Your task to perform on an android device: toggle show notifications on the lock screen Image 0: 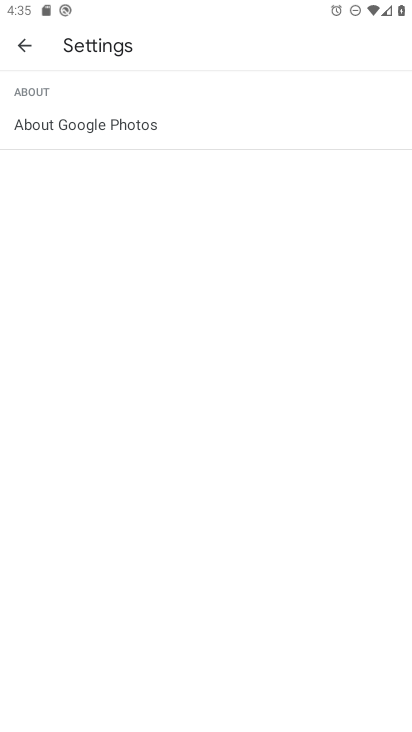
Step 0: press home button
Your task to perform on an android device: toggle show notifications on the lock screen Image 1: 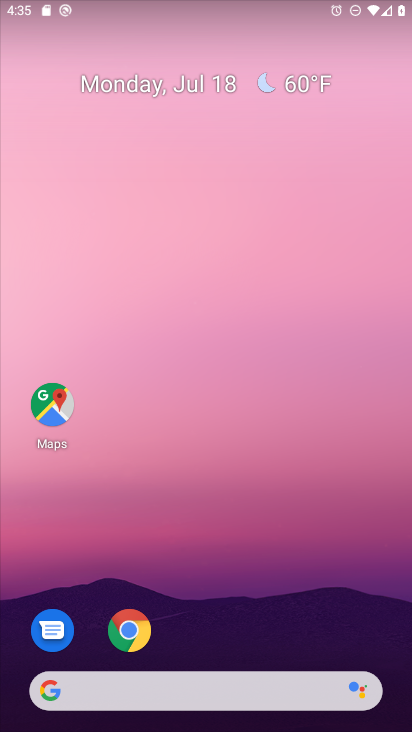
Step 1: drag from (237, 598) to (173, 111)
Your task to perform on an android device: toggle show notifications on the lock screen Image 2: 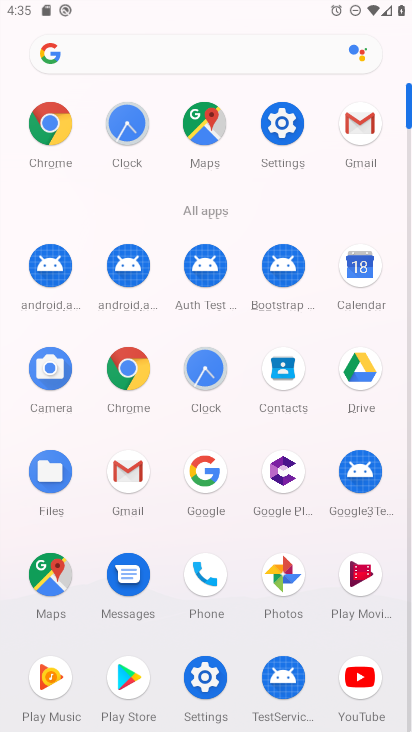
Step 2: click (279, 119)
Your task to perform on an android device: toggle show notifications on the lock screen Image 3: 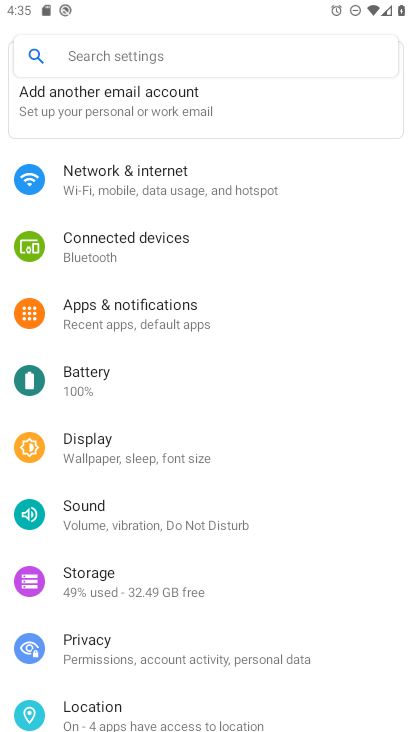
Step 3: click (116, 299)
Your task to perform on an android device: toggle show notifications on the lock screen Image 4: 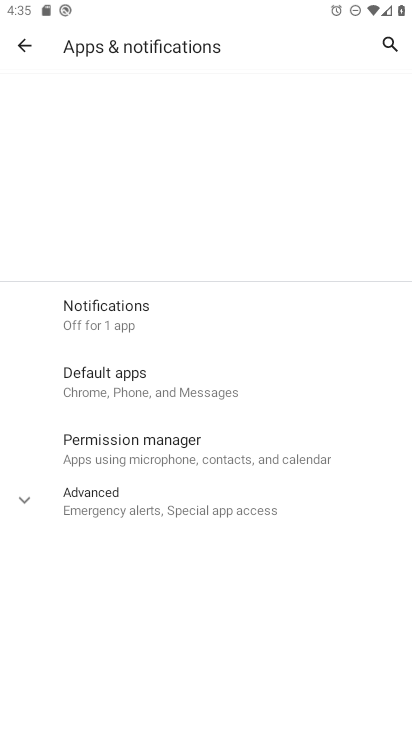
Step 4: click (116, 299)
Your task to perform on an android device: toggle show notifications on the lock screen Image 5: 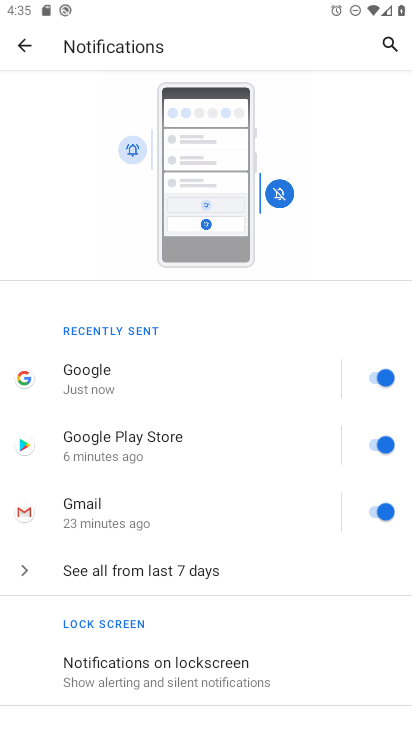
Step 5: click (166, 665)
Your task to perform on an android device: toggle show notifications on the lock screen Image 6: 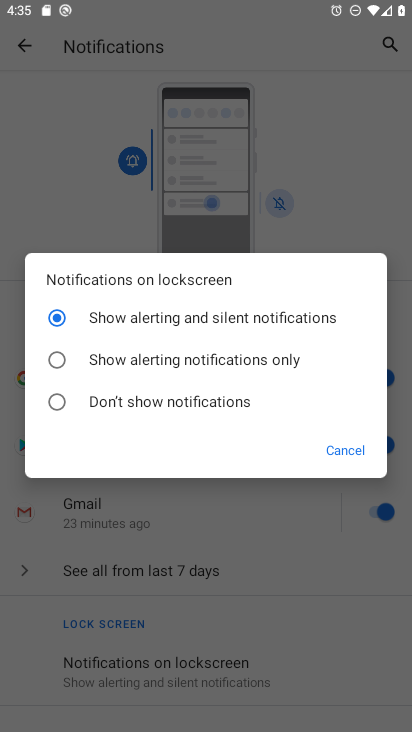
Step 6: click (54, 391)
Your task to perform on an android device: toggle show notifications on the lock screen Image 7: 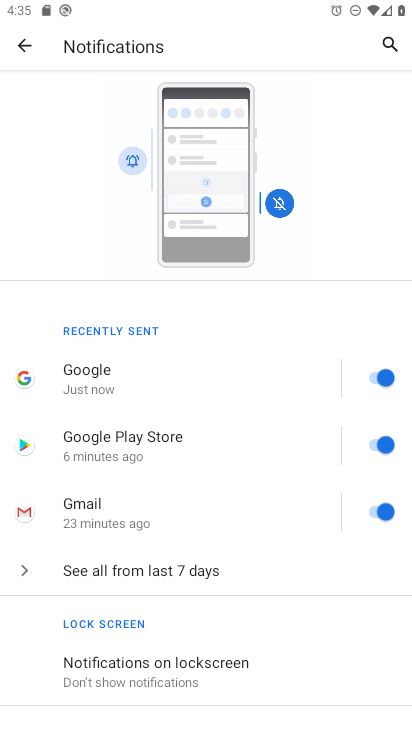
Step 7: task complete